Your task to perform on an android device: turn off translation in the chrome app Image 0: 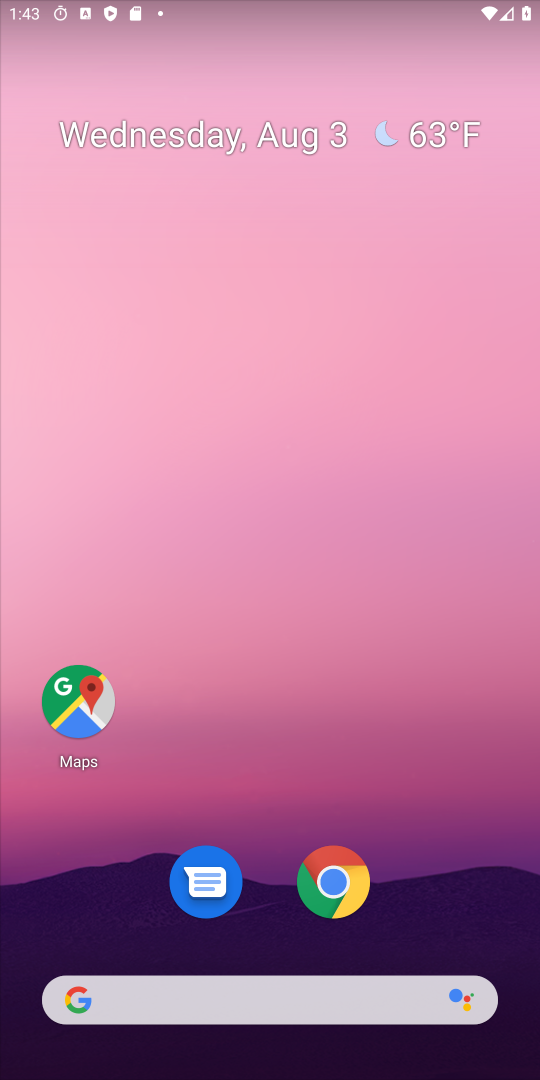
Step 0: drag from (275, 623) to (377, 98)
Your task to perform on an android device: turn off translation in the chrome app Image 1: 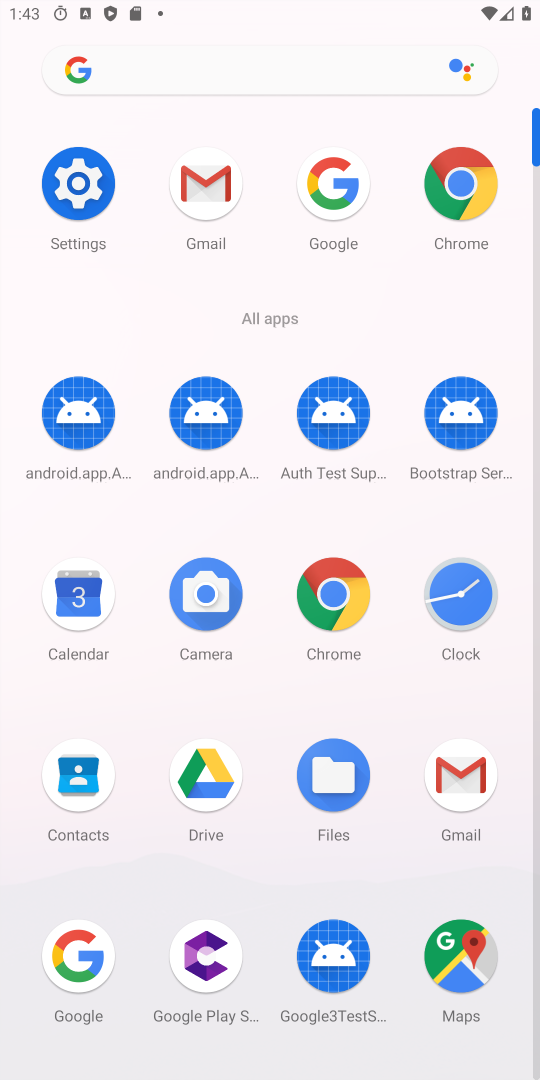
Step 1: click (358, 620)
Your task to perform on an android device: turn off translation in the chrome app Image 2: 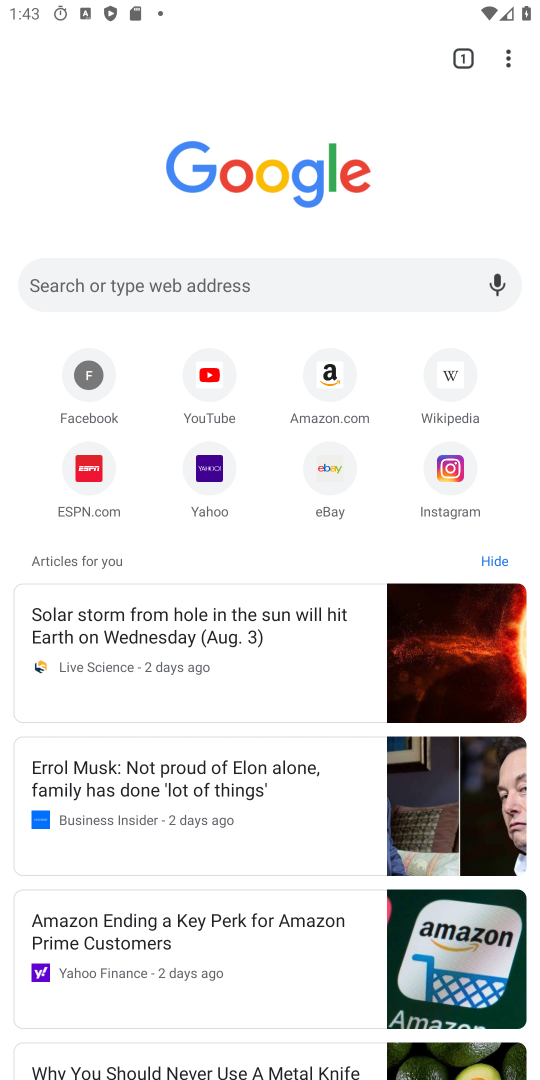
Step 2: click (502, 63)
Your task to perform on an android device: turn off translation in the chrome app Image 3: 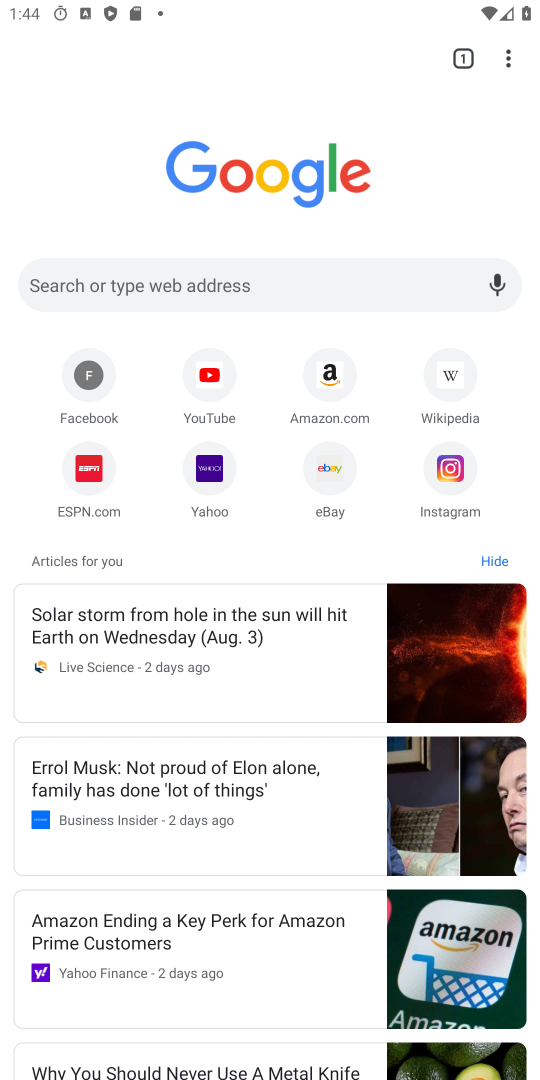
Step 3: click (509, 60)
Your task to perform on an android device: turn off translation in the chrome app Image 4: 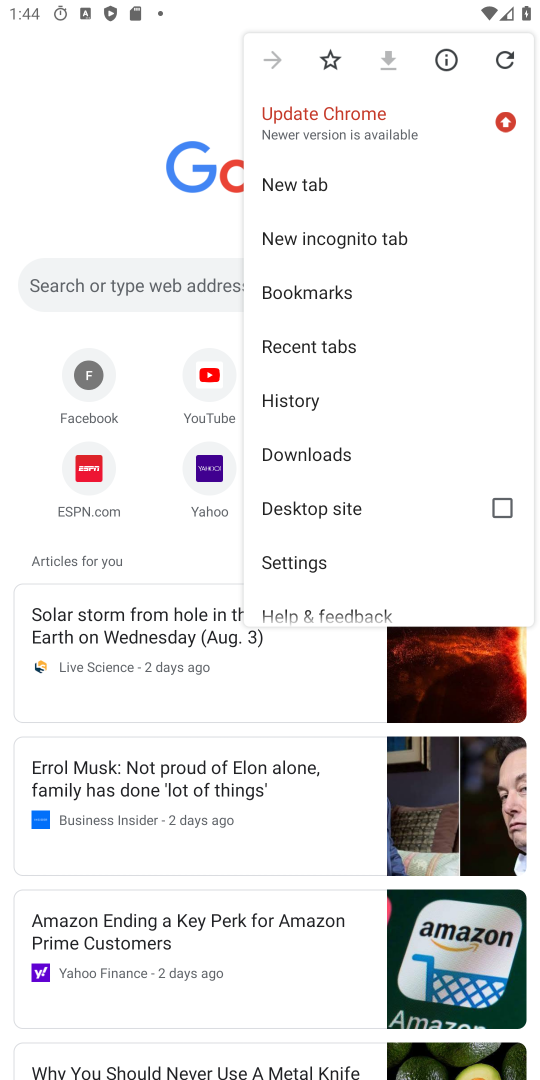
Step 4: click (302, 564)
Your task to perform on an android device: turn off translation in the chrome app Image 5: 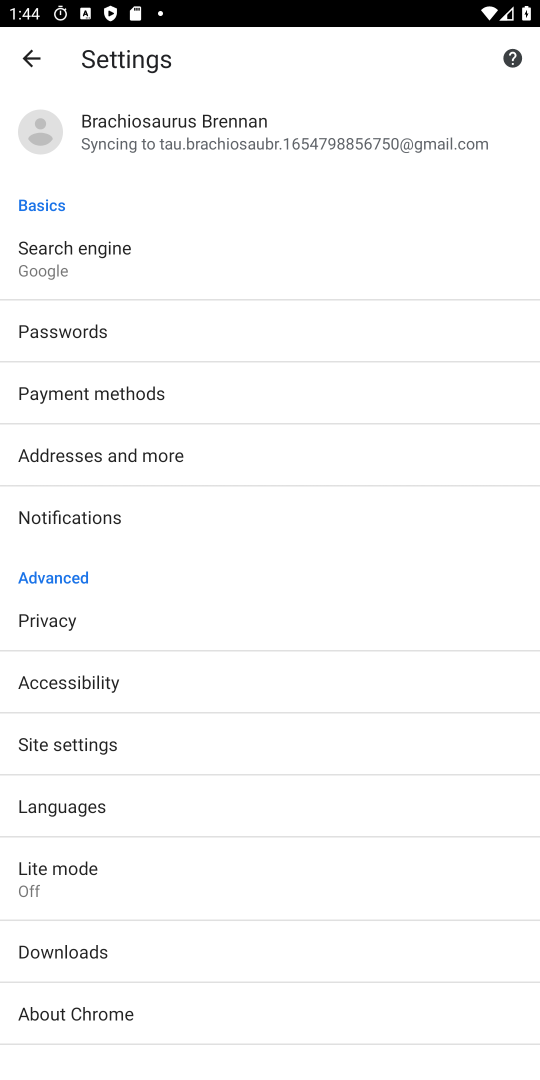
Step 5: click (134, 742)
Your task to perform on an android device: turn off translation in the chrome app Image 6: 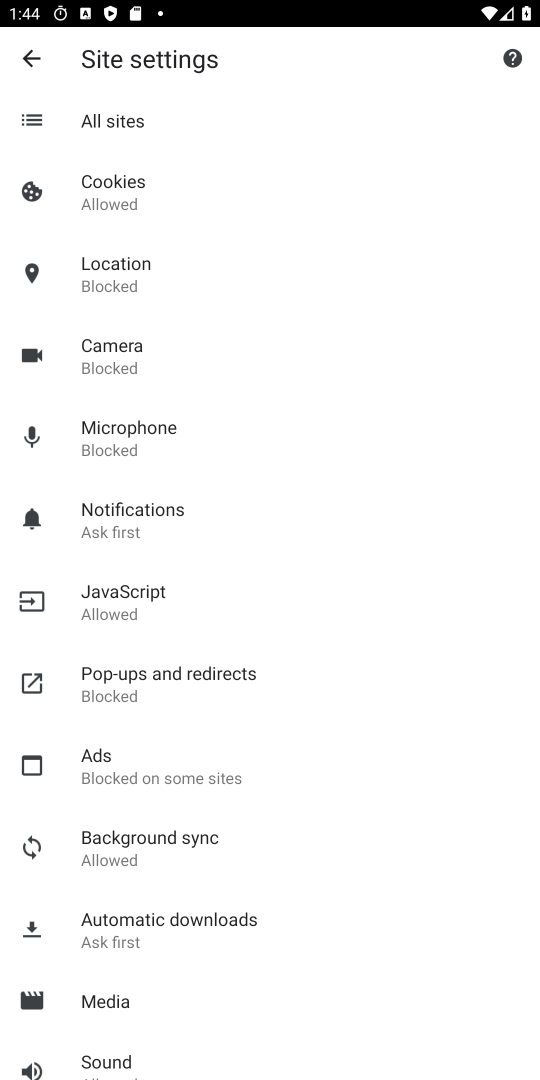
Step 6: press back button
Your task to perform on an android device: turn off translation in the chrome app Image 7: 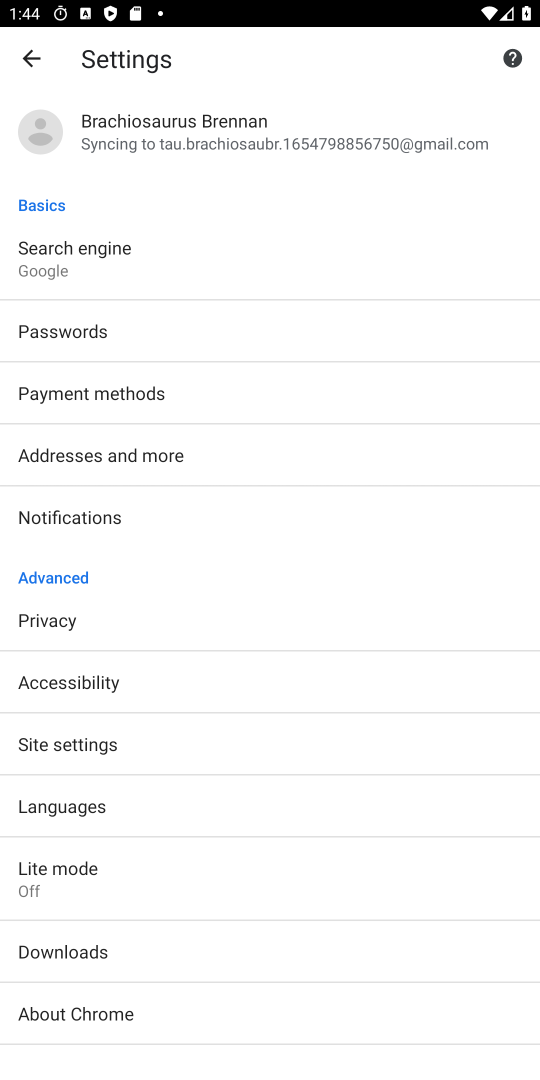
Step 7: click (89, 814)
Your task to perform on an android device: turn off translation in the chrome app Image 8: 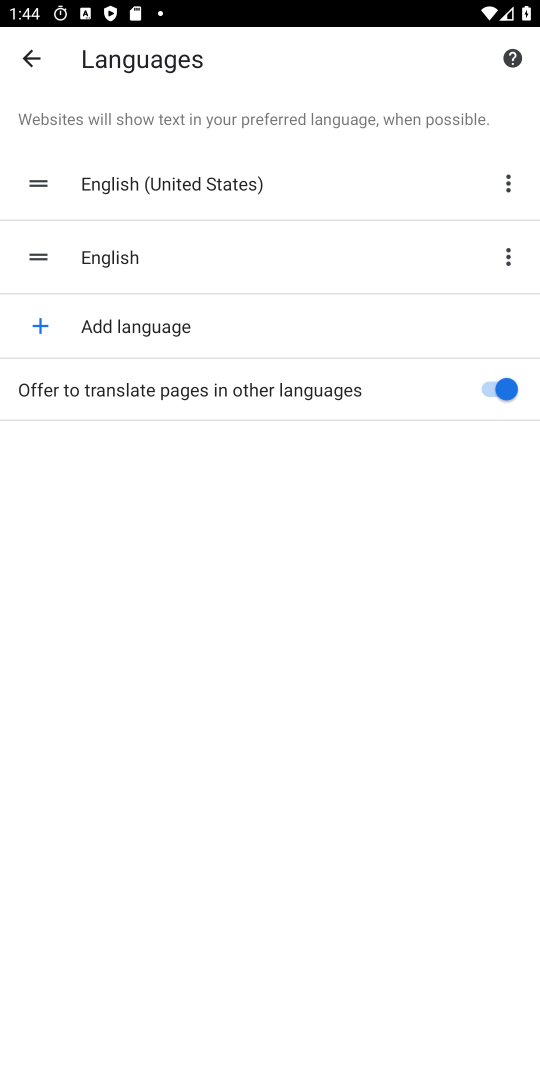
Step 8: click (494, 389)
Your task to perform on an android device: turn off translation in the chrome app Image 9: 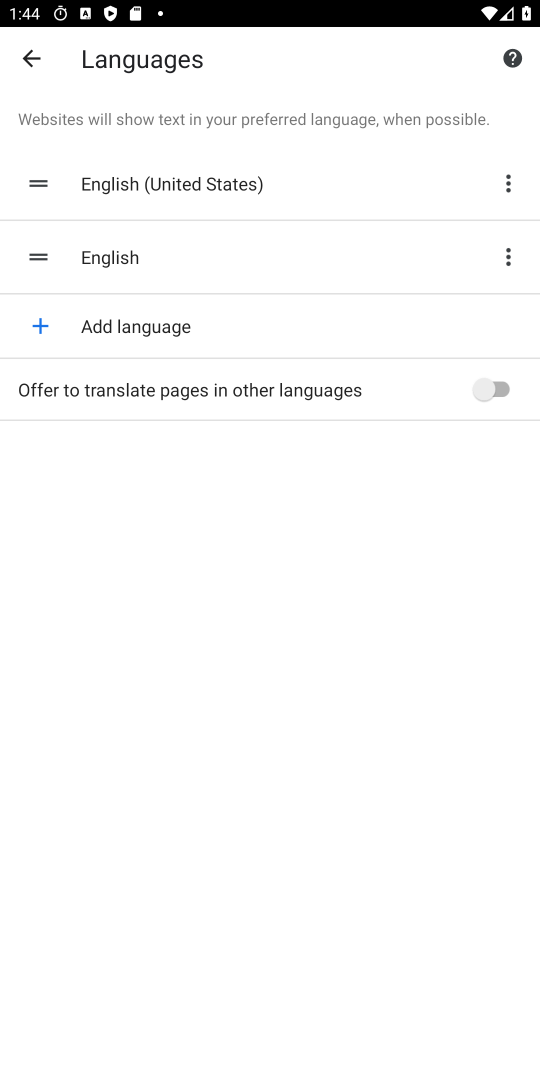
Step 9: task complete